Your task to perform on an android device: Open display settings Image 0: 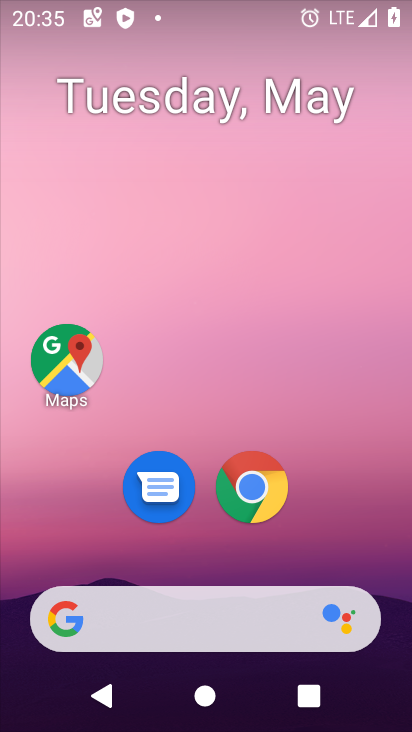
Step 0: drag from (333, 535) to (217, 73)
Your task to perform on an android device: Open display settings Image 1: 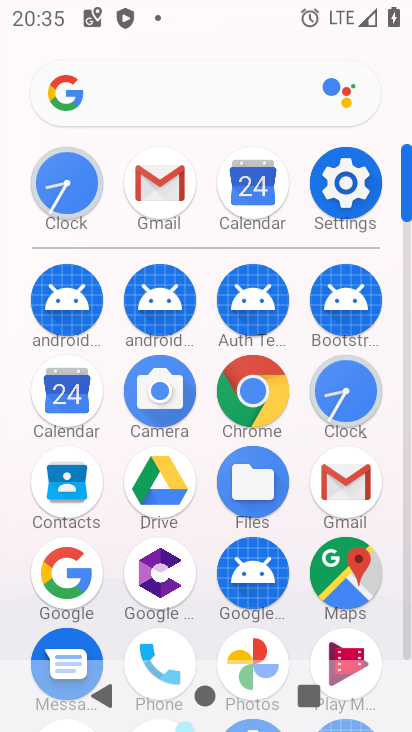
Step 1: click (349, 180)
Your task to perform on an android device: Open display settings Image 2: 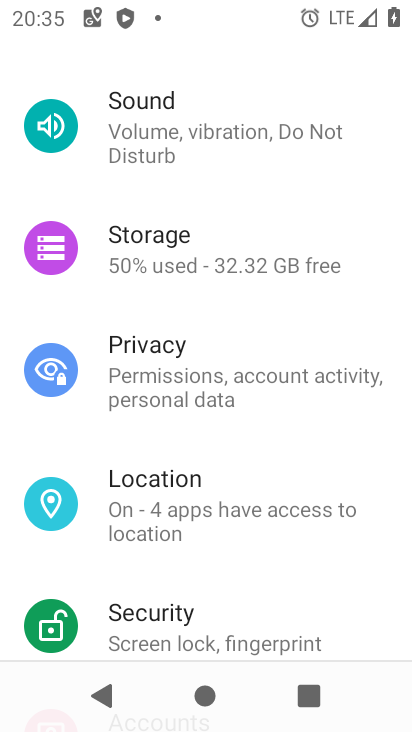
Step 2: drag from (224, 192) to (318, 662)
Your task to perform on an android device: Open display settings Image 3: 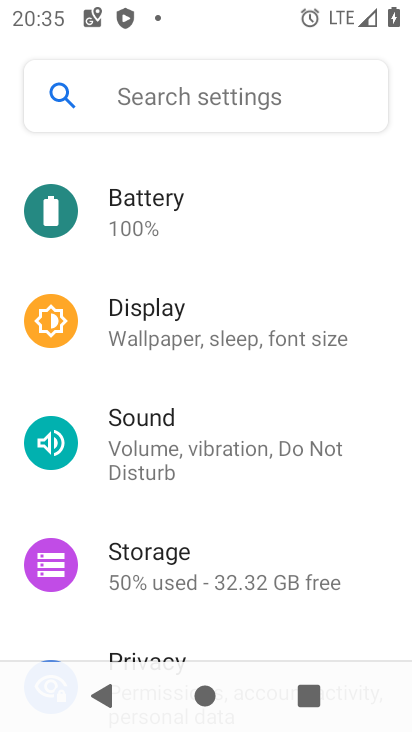
Step 3: click (139, 305)
Your task to perform on an android device: Open display settings Image 4: 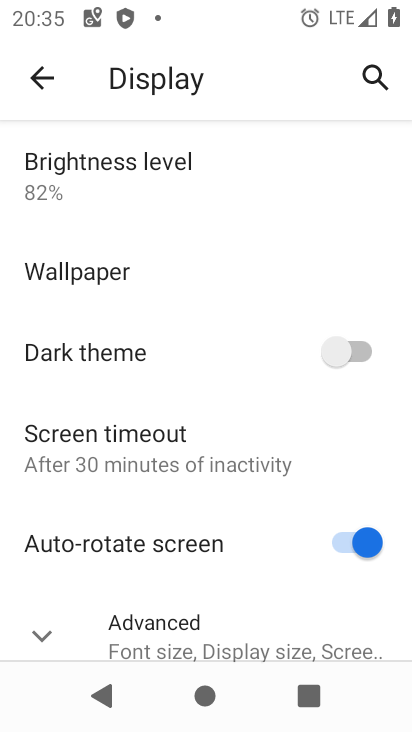
Step 4: task complete